Your task to perform on an android device: change the clock display to digital Image 0: 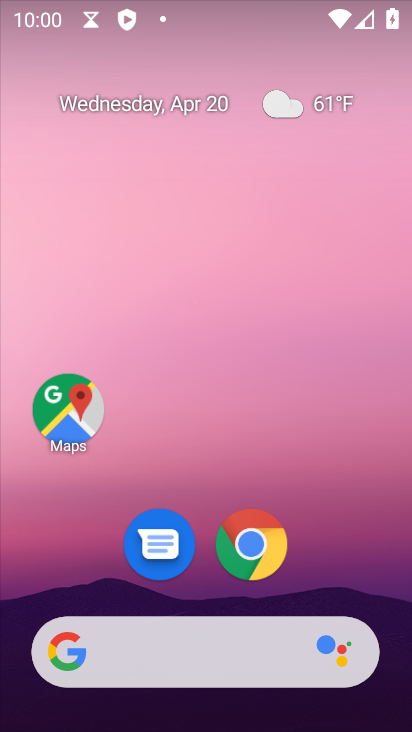
Step 0: drag from (199, 636) to (343, 141)
Your task to perform on an android device: change the clock display to digital Image 1: 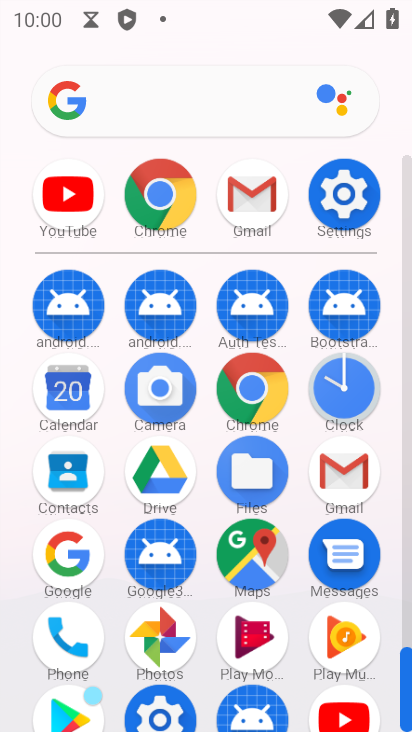
Step 1: click (340, 399)
Your task to perform on an android device: change the clock display to digital Image 2: 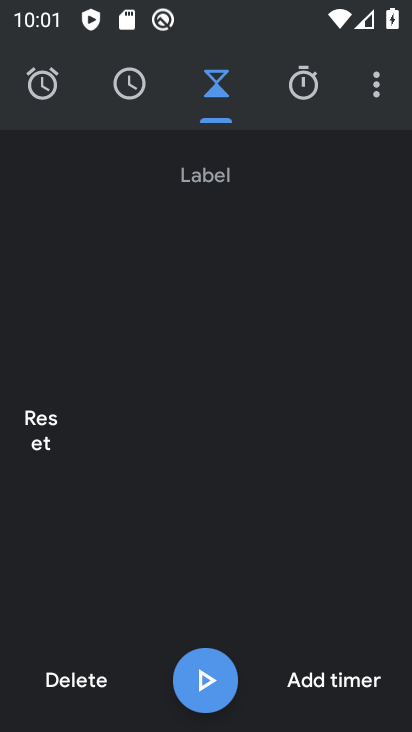
Step 2: click (376, 84)
Your task to perform on an android device: change the clock display to digital Image 3: 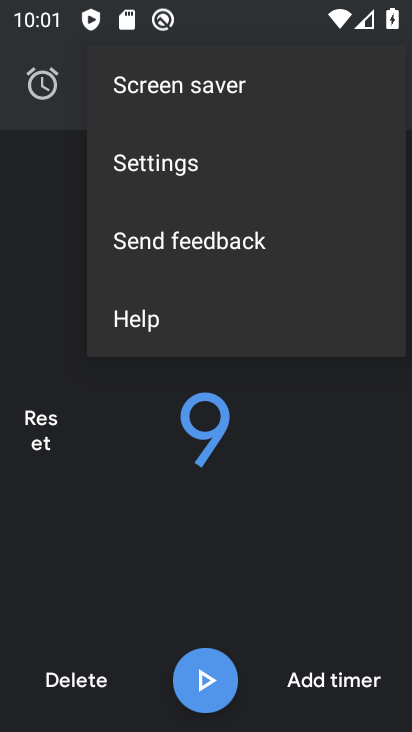
Step 3: click (151, 166)
Your task to perform on an android device: change the clock display to digital Image 4: 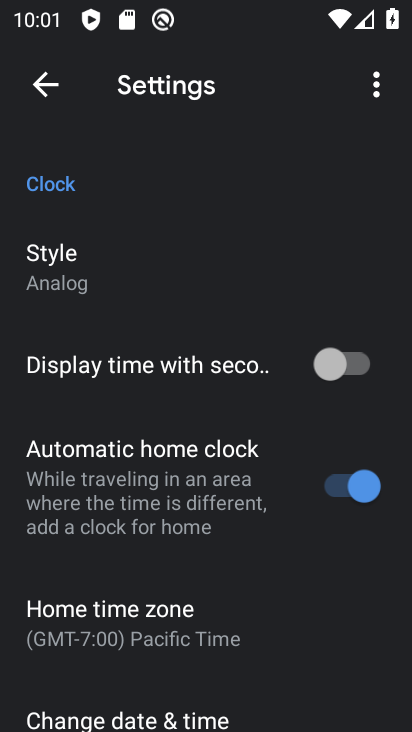
Step 4: click (65, 269)
Your task to perform on an android device: change the clock display to digital Image 5: 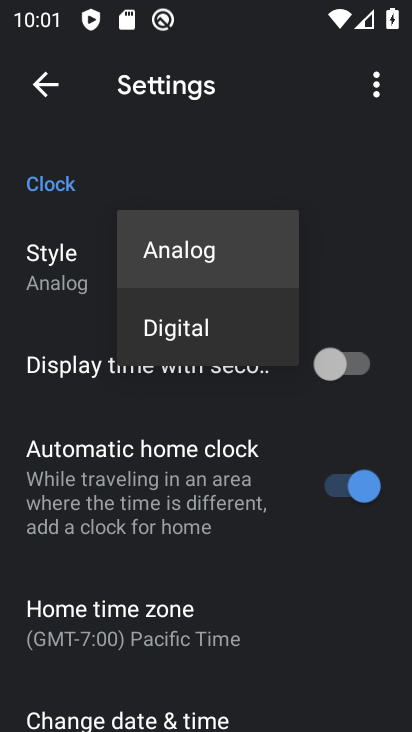
Step 5: click (182, 326)
Your task to perform on an android device: change the clock display to digital Image 6: 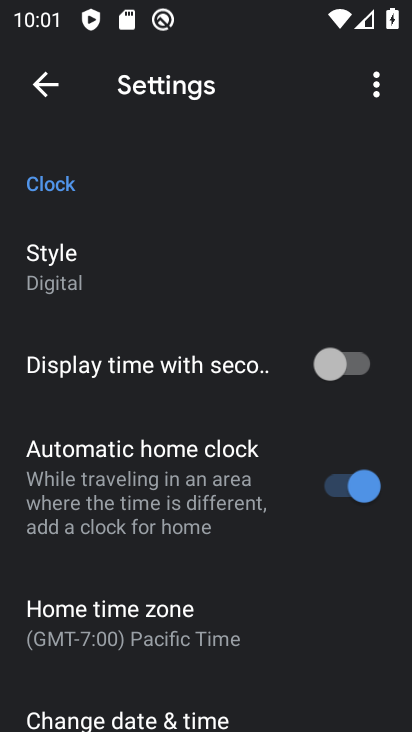
Step 6: task complete